Your task to perform on an android device: Open Yahoo.com Image 0: 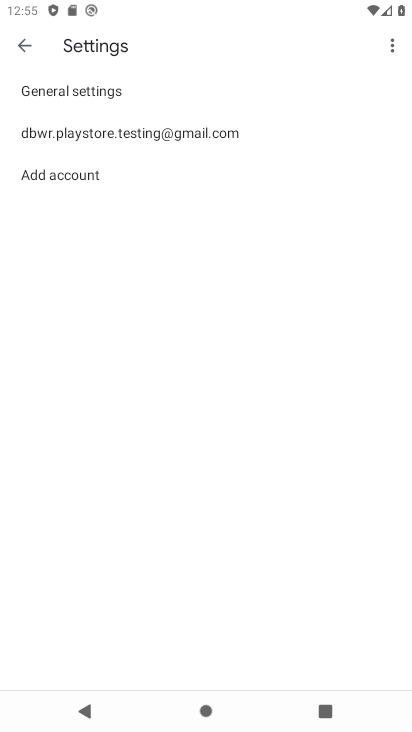
Step 0: press home button
Your task to perform on an android device: Open Yahoo.com Image 1: 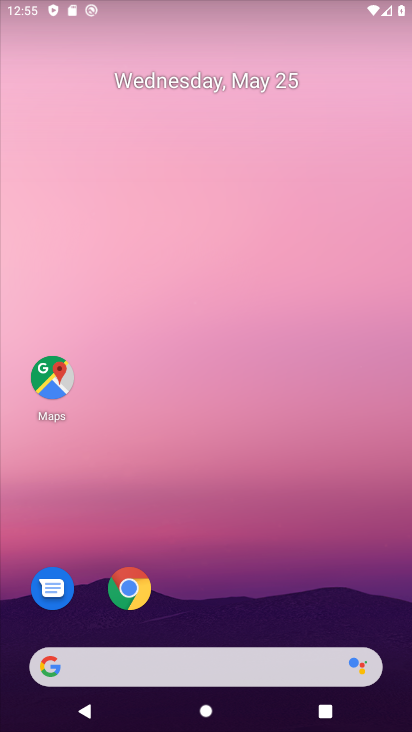
Step 1: drag from (243, 576) to (222, 187)
Your task to perform on an android device: Open Yahoo.com Image 2: 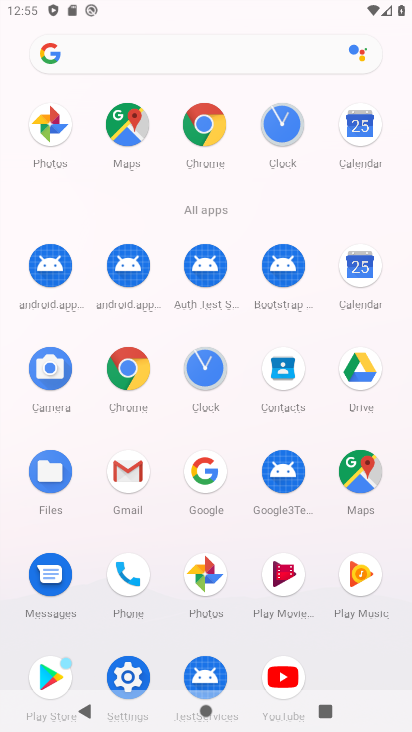
Step 2: click (127, 375)
Your task to perform on an android device: Open Yahoo.com Image 3: 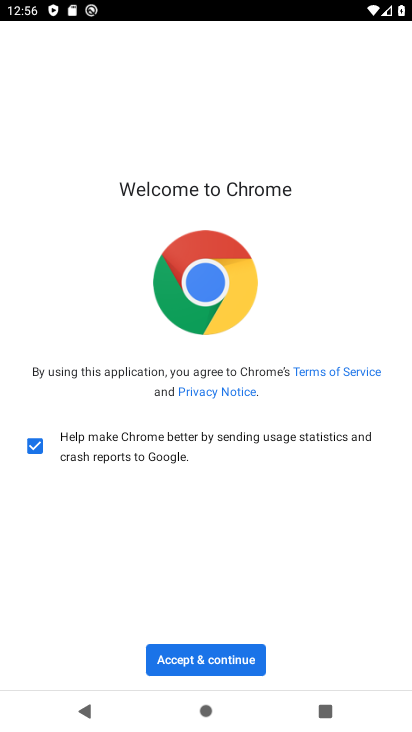
Step 3: click (173, 662)
Your task to perform on an android device: Open Yahoo.com Image 4: 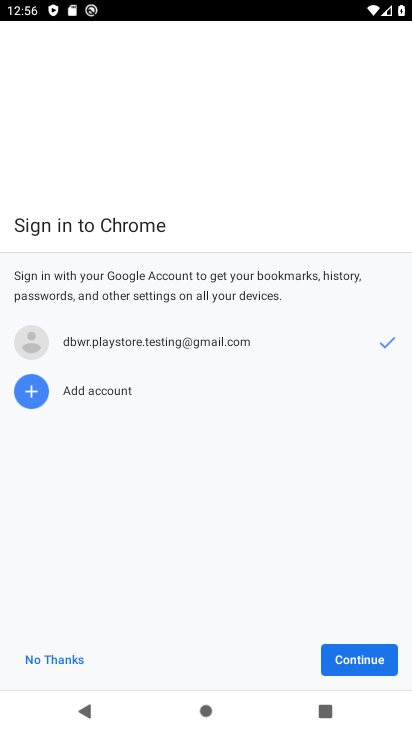
Step 4: click (358, 667)
Your task to perform on an android device: Open Yahoo.com Image 5: 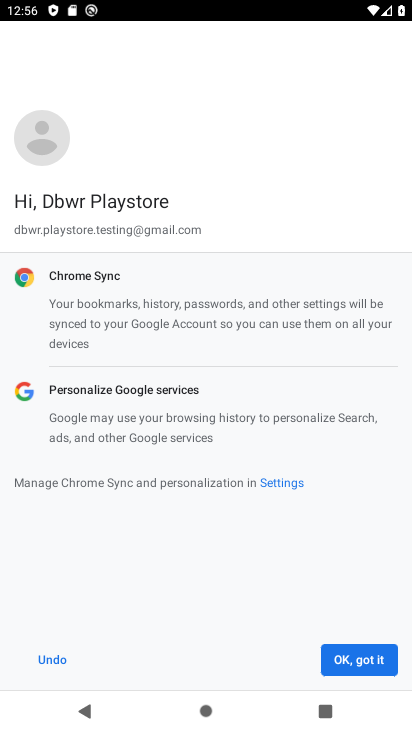
Step 5: click (348, 660)
Your task to perform on an android device: Open Yahoo.com Image 6: 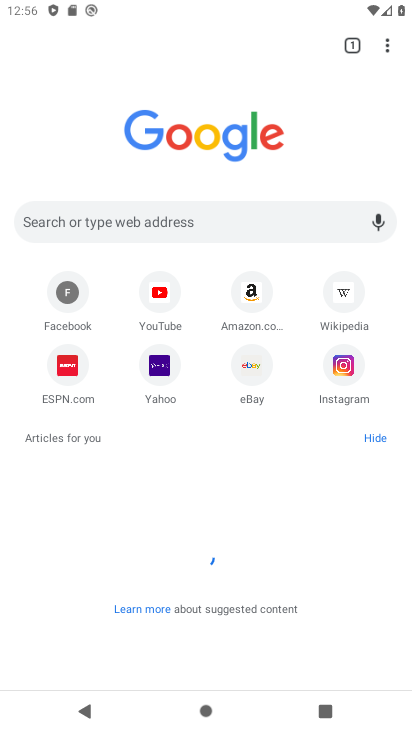
Step 6: click (155, 380)
Your task to perform on an android device: Open Yahoo.com Image 7: 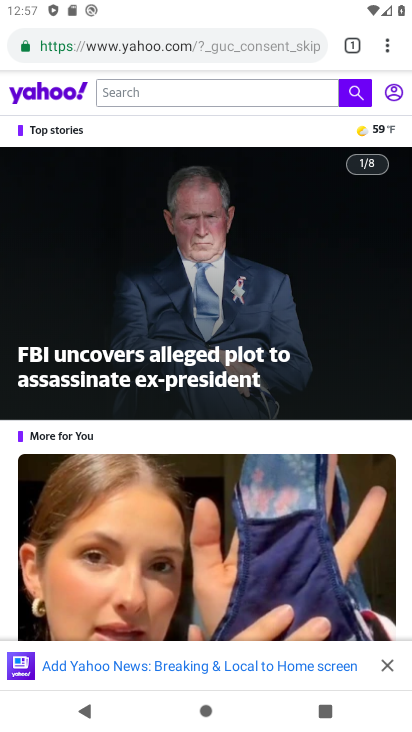
Step 7: task complete